Your task to perform on an android device: see sites visited before in the chrome app Image 0: 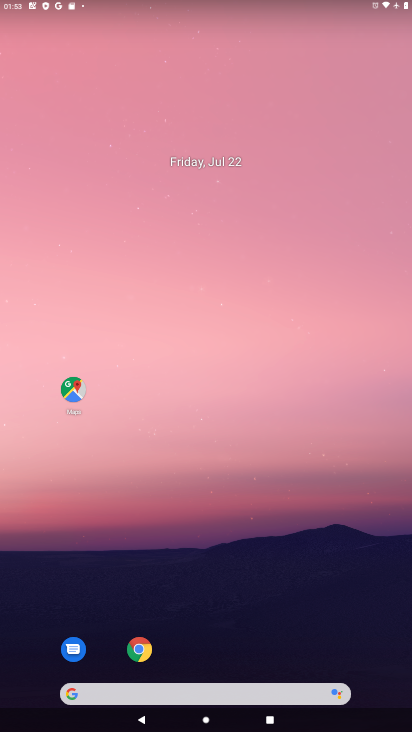
Step 0: drag from (334, 554) to (291, 114)
Your task to perform on an android device: see sites visited before in the chrome app Image 1: 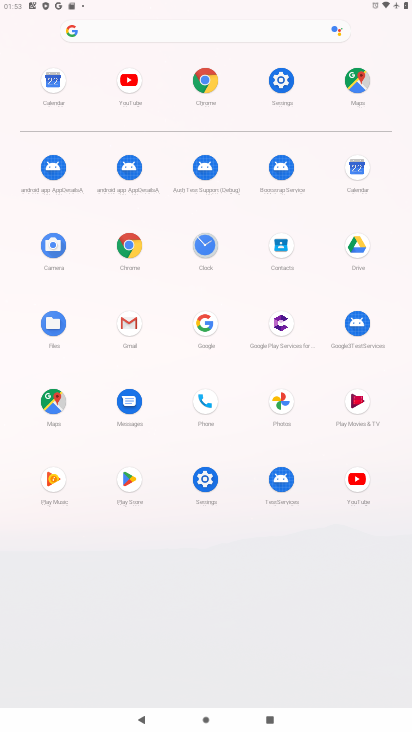
Step 1: click (128, 252)
Your task to perform on an android device: see sites visited before in the chrome app Image 2: 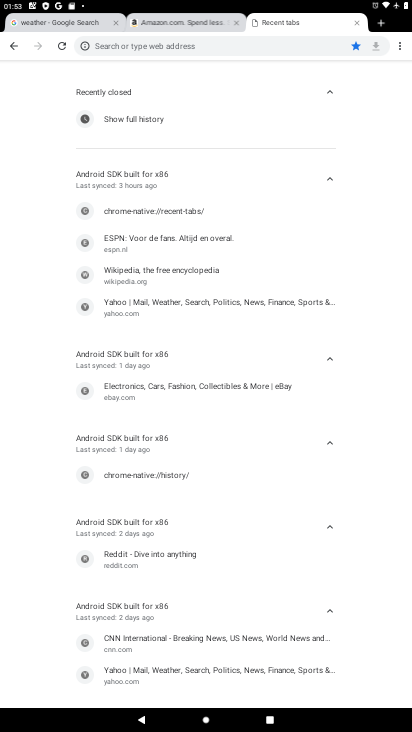
Step 2: task complete